Your task to perform on an android device: add a contact in the contacts app Image 0: 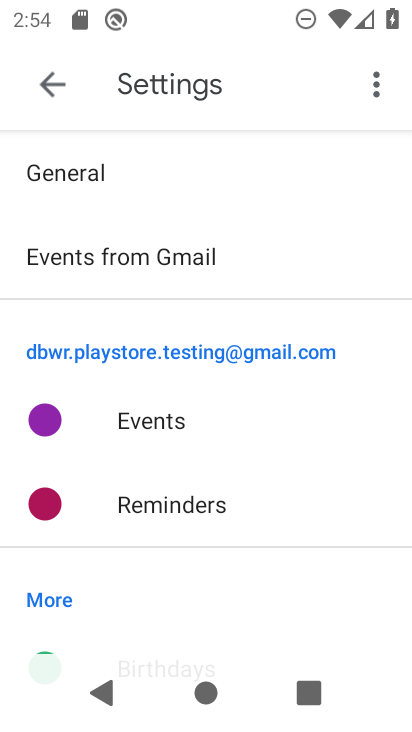
Step 0: press home button
Your task to perform on an android device: add a contact in the contacts app Image 1: 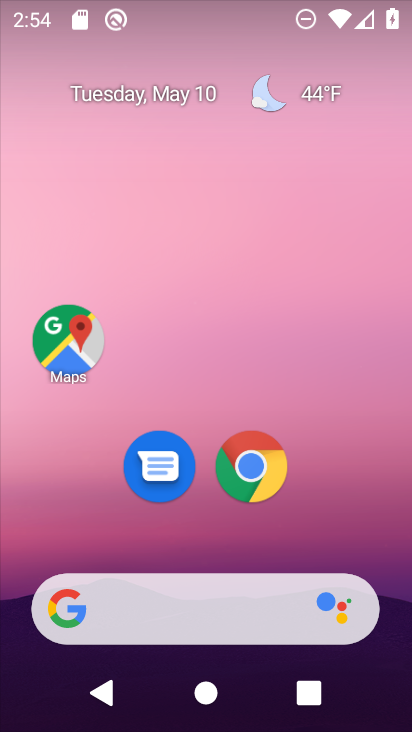
Step 1: drag from (225, 565) to (290, 30)
Your task to perform on an android device: add a contact in the contacts app Image 2: 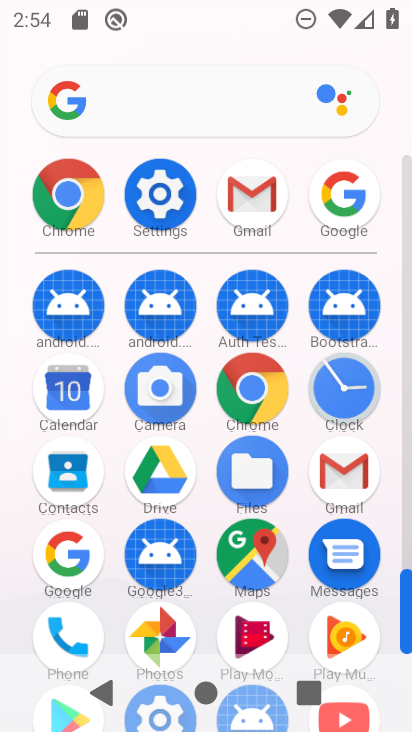
Step 2: click (66, 481)
Your task to perform on an android device: add a contact in the contacts app Image 3: 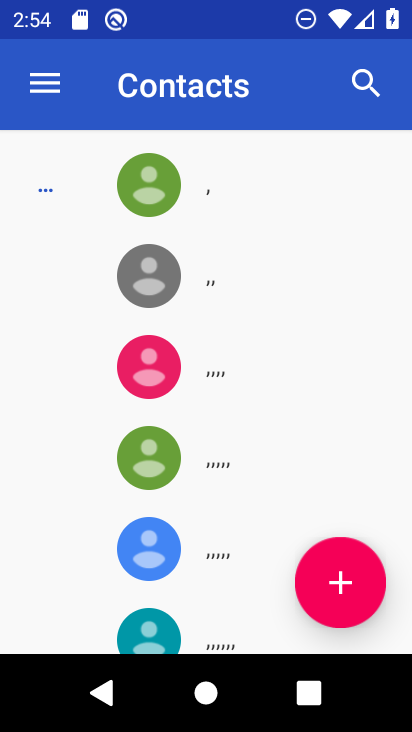
Step 3: click (334, 588)
Your task to perform on an android device: add a contact in the contacts app Image 4: 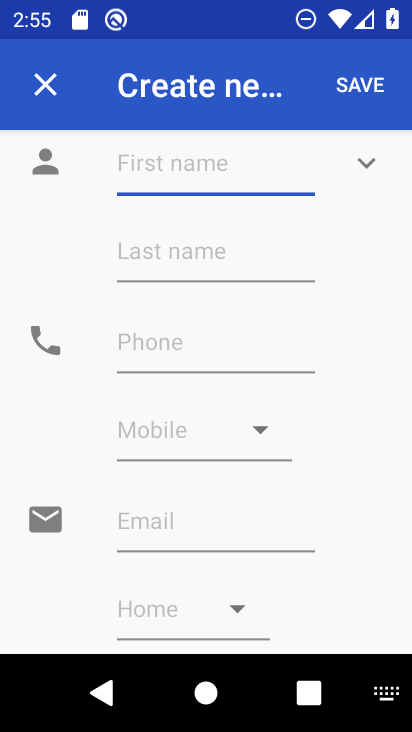
Step 4: type "rtyuioptcxfg"
Your task to perform on an android device: add a contact in the contacts app Image 5: 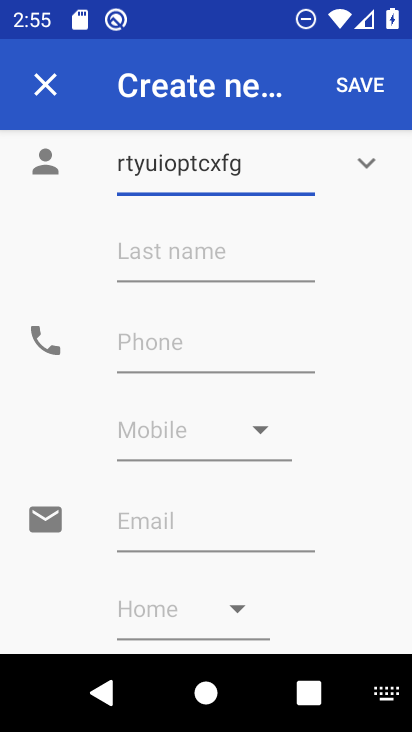
Step 5: click (168, 352)
Your task to perform on an android device: add a contact in the contacts app Image 6: 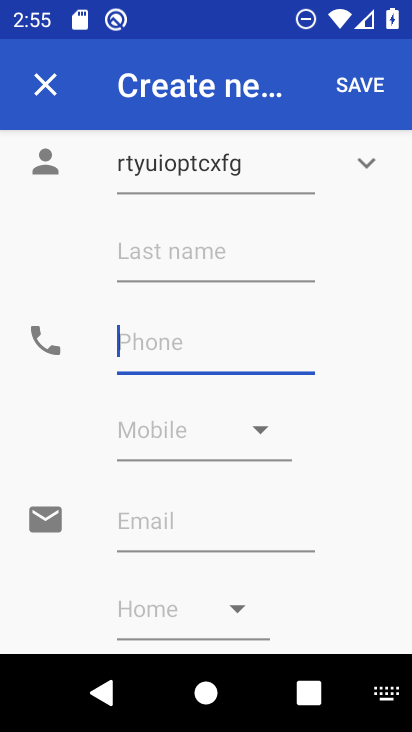
Step 6: type "6778909878"
Your task to perform on an android device: add a contact in the contacts app Image 7: 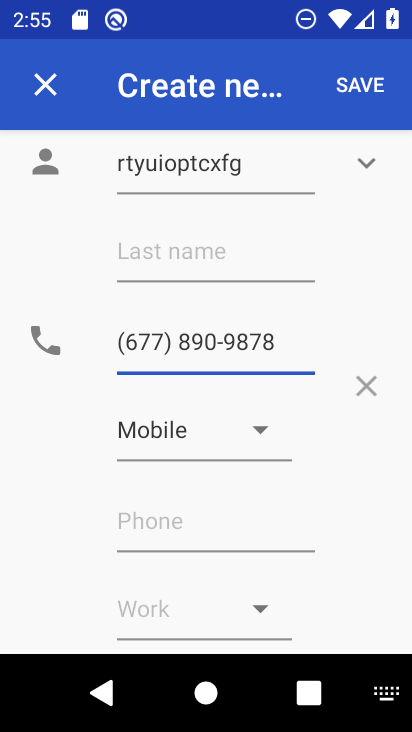
Step 7: click (366, 91)
Your task to perform on an android device: add a contact in the contacts app Image 8: 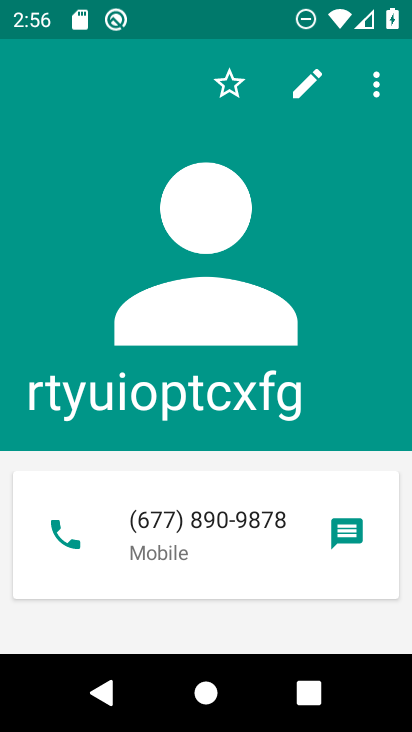
Step 8: task complete